Your task to perform on an android device: change your default location settings in chrome Image 0: 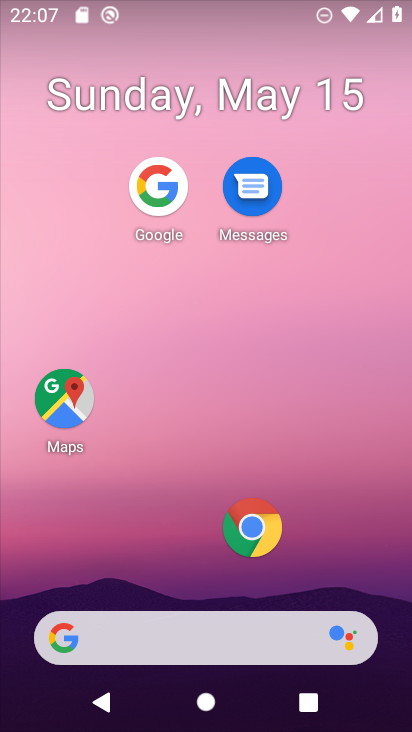
Step 0: press home button
Your task to perform on an android device: change your default location settings in chrome Image 1: 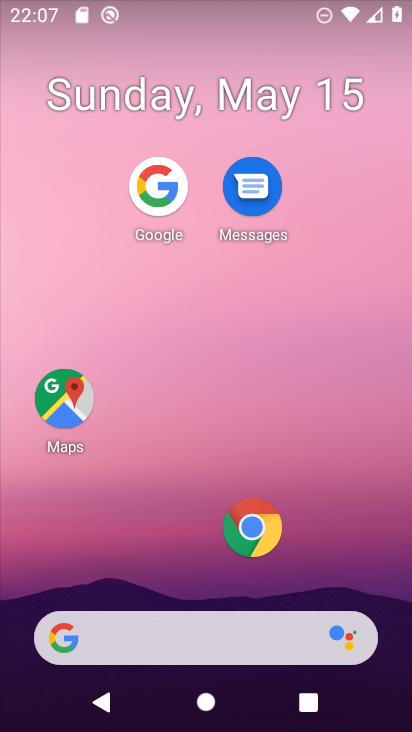
Step 1: click (254, 537)
Your task to perform on an android device: change your default location settings in chrome Image 2: 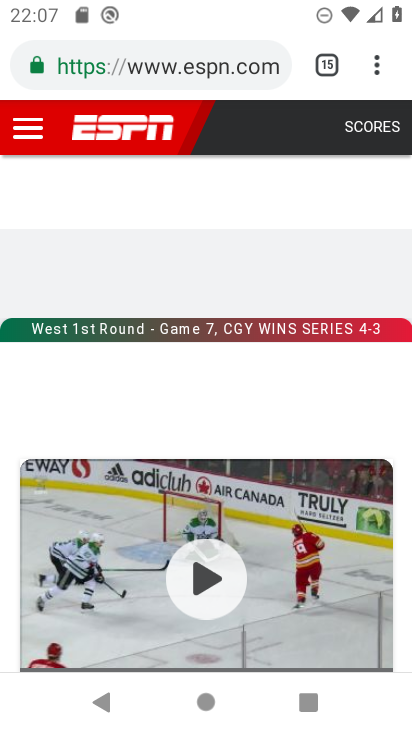
Step 2: drag from (375, 72) to (228, 574)
Your task to perform on an android device: change your default location settings in chrome Image 3: 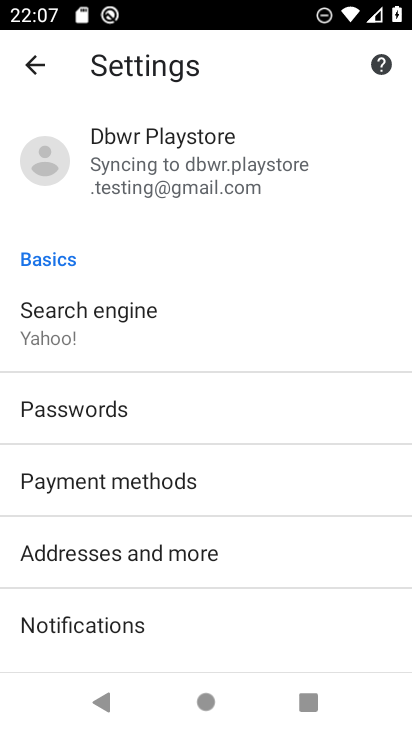
Step 3: drag from (195, 602) to (327, 185)
Your task to perform on an android device: change your default location settings in chrome Image 4: 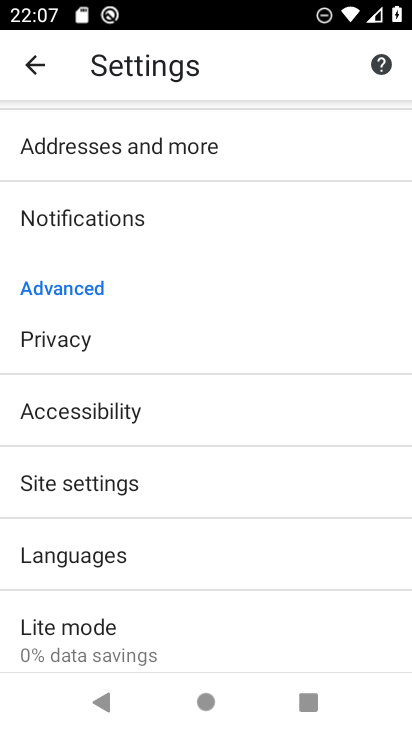
Step 4: click (117, 485)
Your task to perform on an android device: change your default location settings in chrome Image 5: 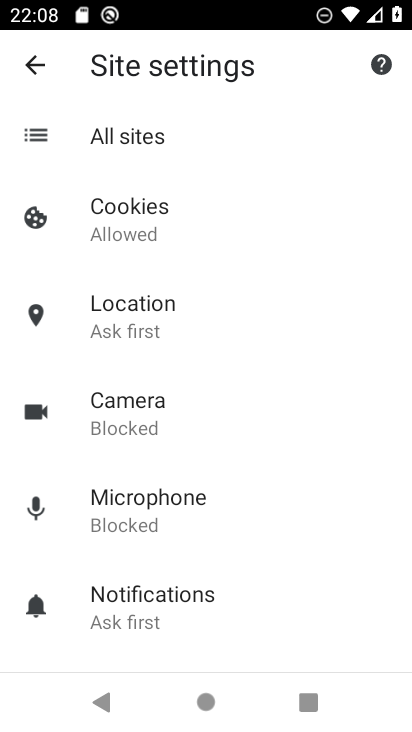
Step 5: click (142, 319)
Your task to perform on an android device: change your default location settings in chrome Image 6: 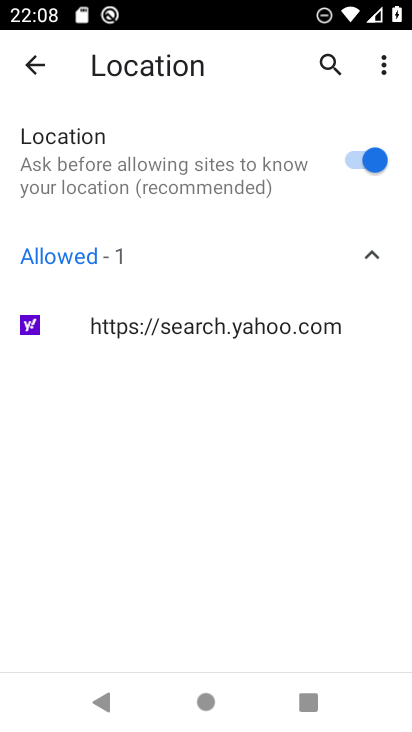
Step 6: click (355, 159)
Your task to perform on an android device: change your default location settings in chrome Image 7: 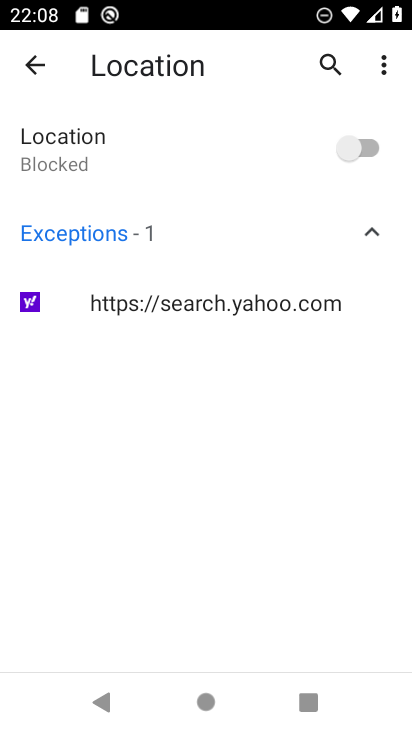
Step 7: task complete